Your task to perform on an android device: Search for Mexican restaurants on Maps Image 0: 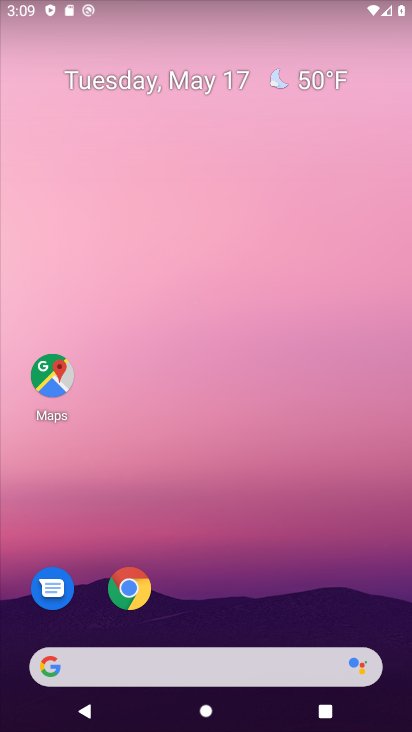
Step 0: click (41, 367)
Your task to perform on an android device: Search for Mexican restaurants on Maps Image 1: 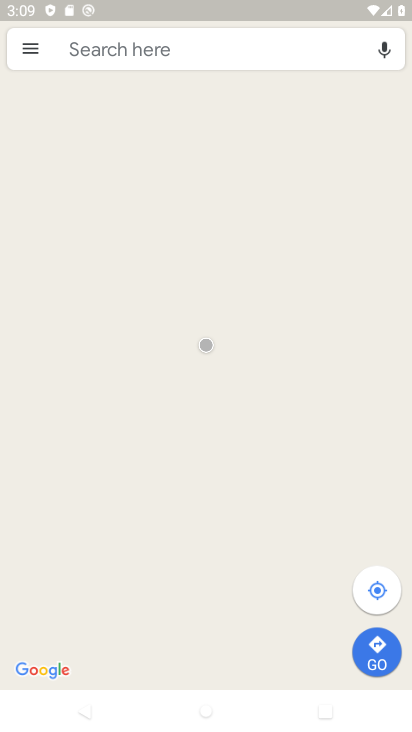
Step 1: click (141, 45)
Your task to perform on an android device: Search for Mexican restaurants on Maps Image 2: 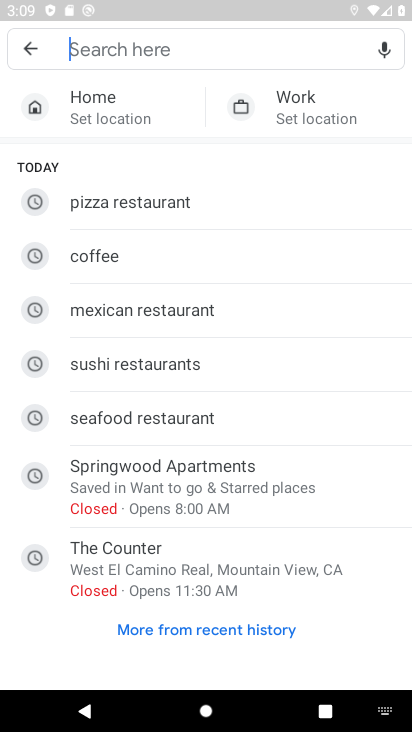
Step 2: type "Mexican restaurants"
Your task to perform on an android device: Search for Mexican restaurants on Maps Image 3: 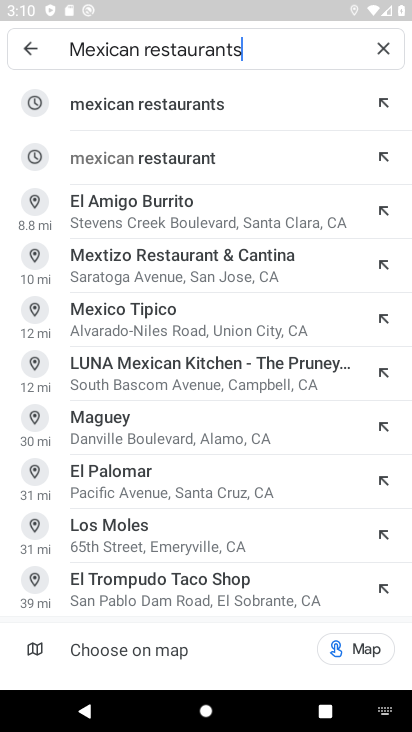
Step 3: click (141, 112)
Your task to perform on an android device: Search for Mexican restaurants on Maps Image 4: 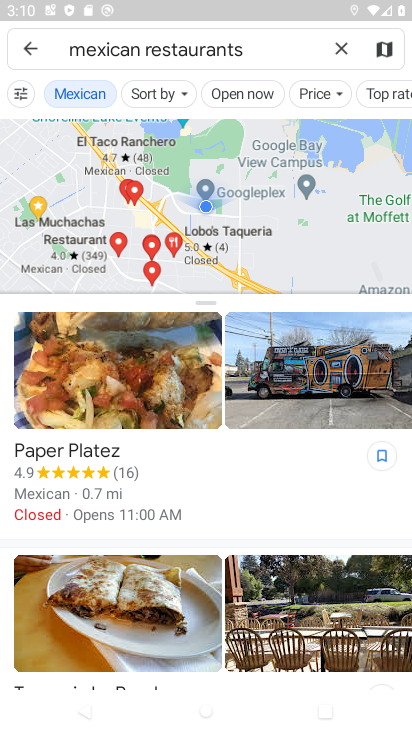
Step 4: task complete